Your task to perform on an android device: open chrome privacy settings Image 0: 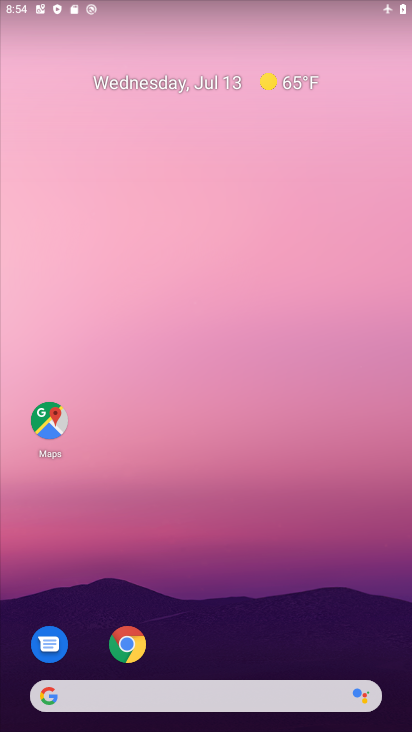
Step 0: drag from (292, 602) to (218, 75)
Your task to perform on an android device: open chrome privacy settings Image 1: 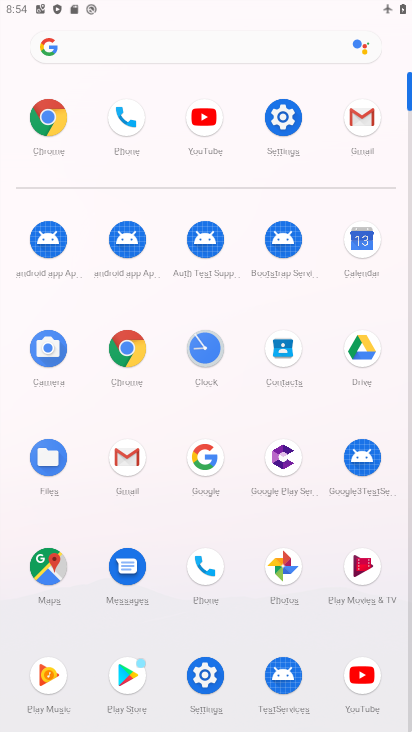
Step 1: click (278, 103)
Your task to perform on an android device: open chrome privacy settings Image 2: 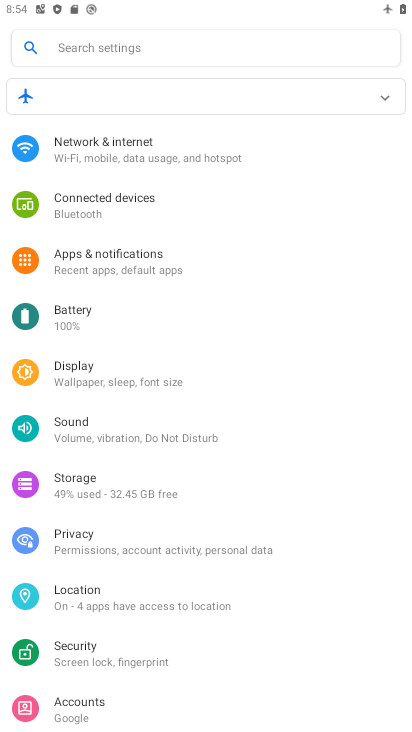
Step 2: click (75, 545)
Your task to perform on an android device: open chrome privacy settings Image 3: 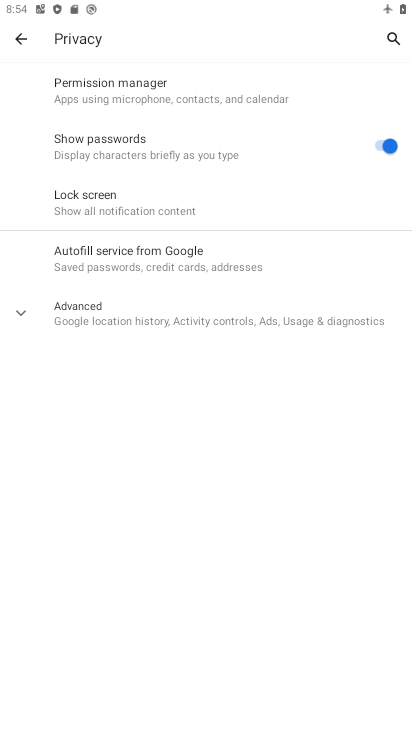
Step 3: task complete